Your task to perform on an android device: delete a single message in the gmail app Image 0: 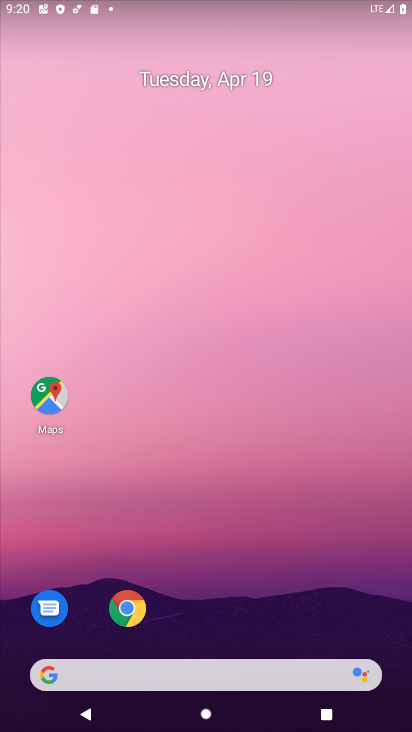
Step 0: drag from (400, 649) to (326, 98)
Your task to perform on an android device: delete a single message in the gmail app Image 1: 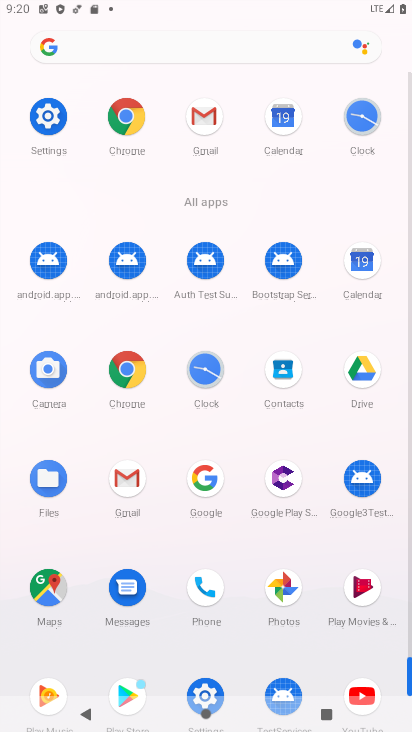
Step 1: click (123, 478)
Your task to perform on an android device: delete a single message in the gmail app Image 2: 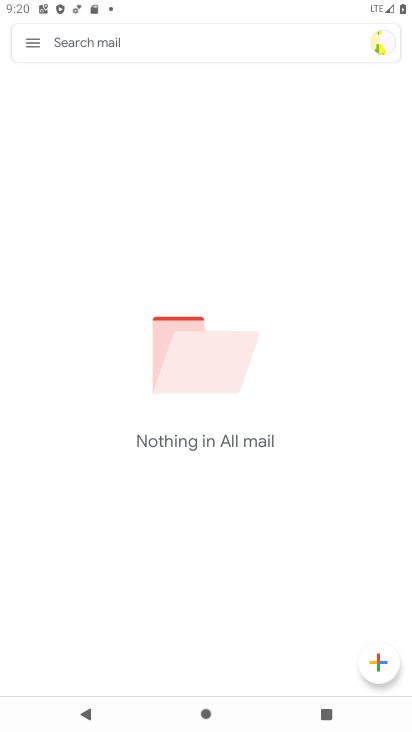
Step 2: click (32, 40)
Your task to perform on an android device: delete a single message in the gmail app Image 3: 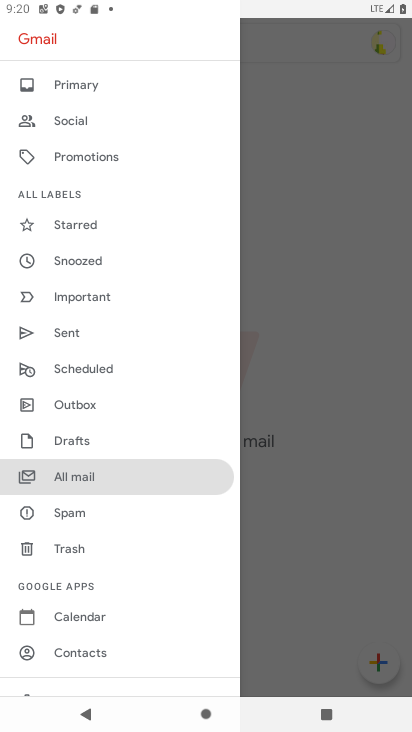
Step 3: click (99, 476)
Your task to perform on an android device: delete a single message in the gmail app Image 4: 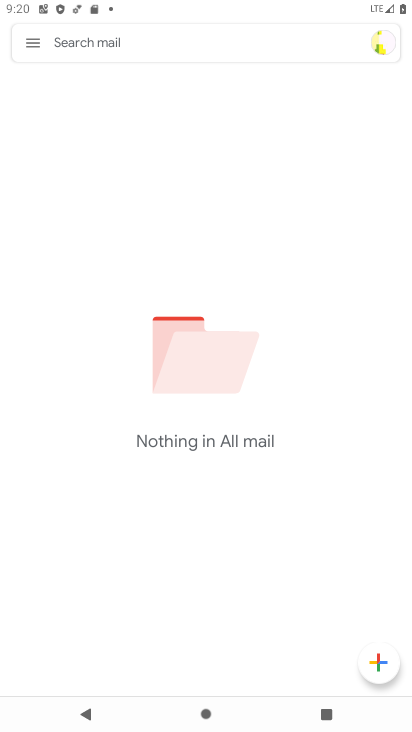
Step 4: task complete